Your task to perform on an android device: What's the weather going to be this weekend? Image 0: 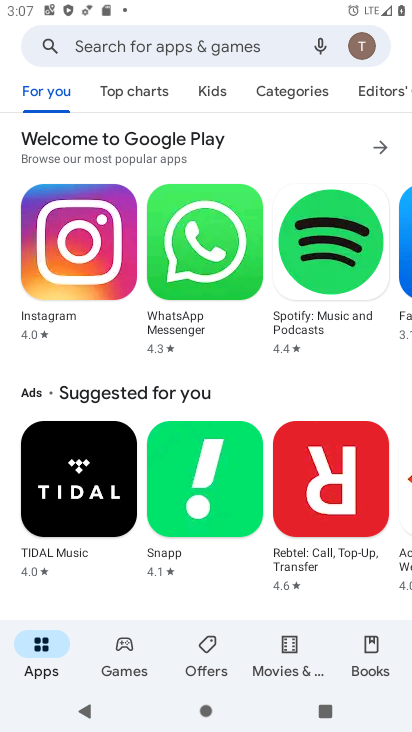
Step 0: press back button
Your task to perform on an android device: What's the weather going to be this weekend? Image 1: 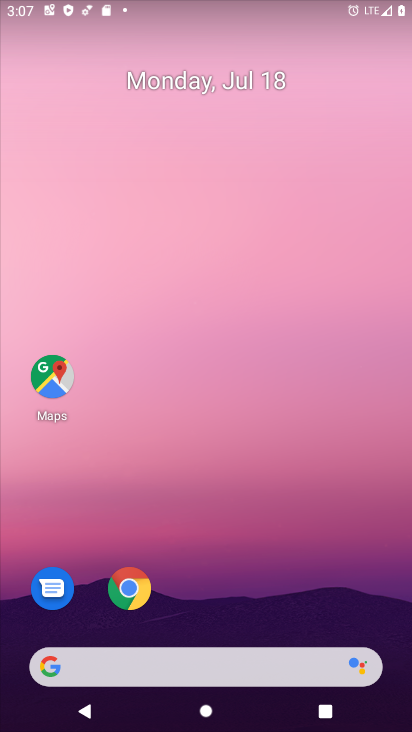
Step 1: click (131, 642)
Your task to perform on an android device: What's the weather going to be this weekend? Image 2: 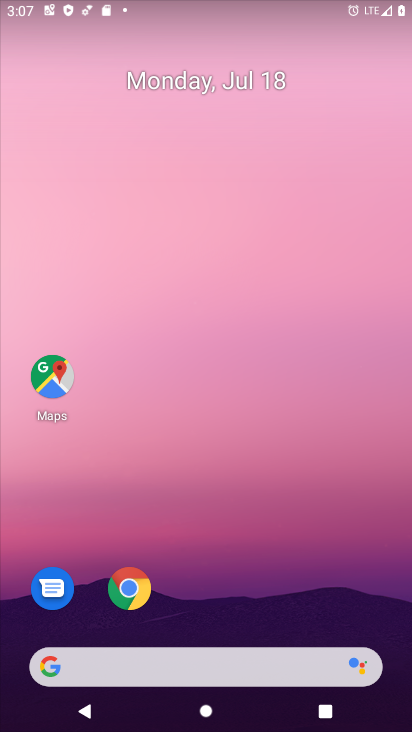
Step 2: click (156, 673)
Your task to perform on an android device: What's the weather going to be this weekend? Image 3: 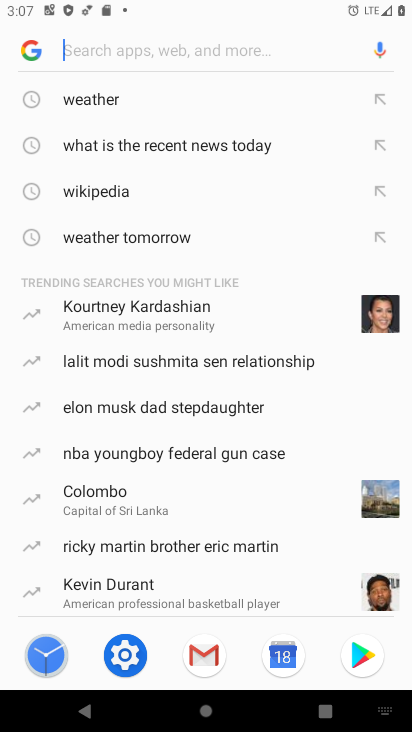
Step 3: click (104, 90)
Your task to perform on an android device: What's the weather going to be this weekend? Image 4: 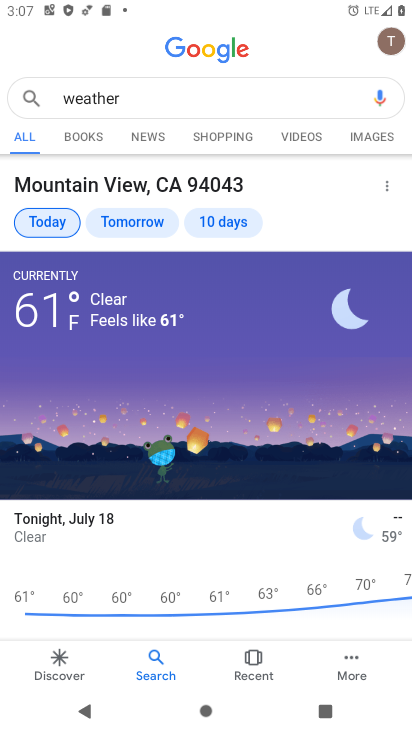
Step 4: click (218, 220)
Your task to perform on an android device: What's the weather going to be this weekend? Image 5: 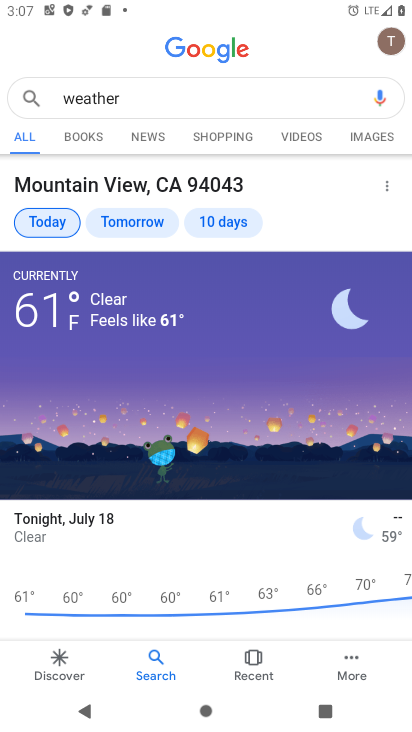
Step 5: click (237, 226)
Your task to perform on an android device: What's the weather going to be this weekend? Image 6: 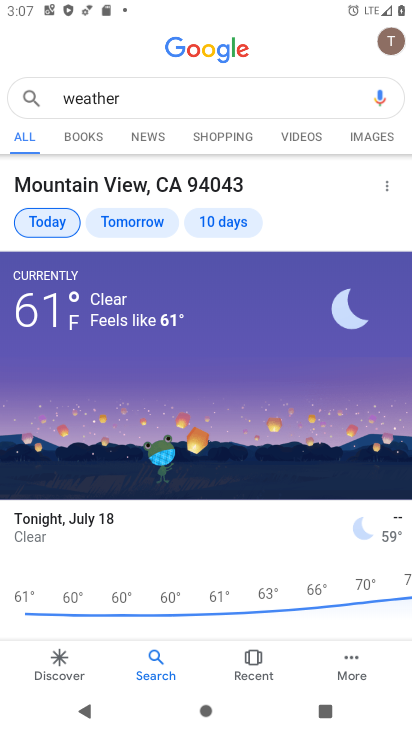
Step 6: click (230, 221)
Your task to perform on an android device: What's the weather going to be this weekend? Image 7: 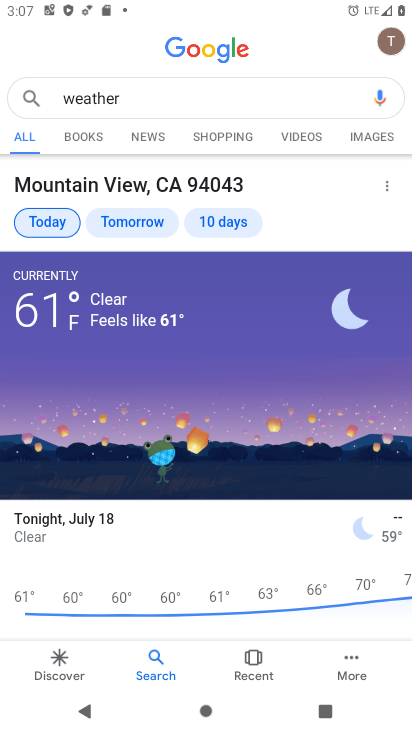
Step 7: task complete